Your task to perform on an android device: Show me the alarms in the clock app Image 0: 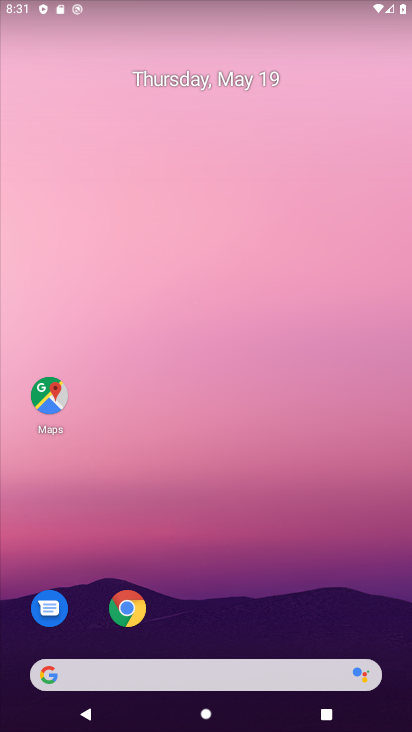
Step 0: click (128, 53)
Your task to perform on an android device: Show me the alarms in the clock app Image 1: 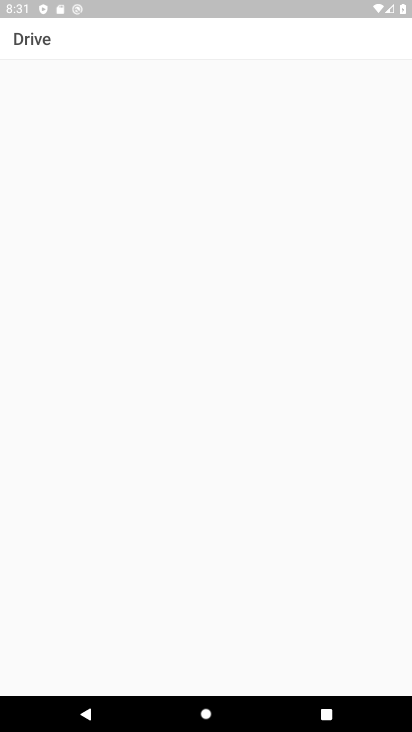
Step 1: press home button
Your task to perform on an android device: Show me the alarms in the clock app Image 2: 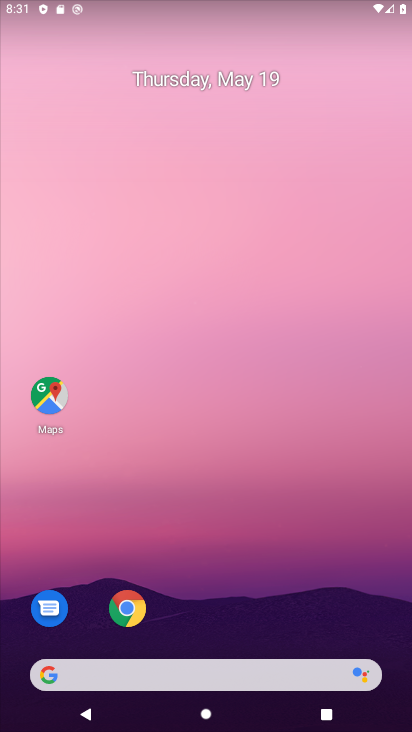
Step 2: drag from (191, 622) to (149, 77)
Your task to perform on an android device: Show me the alarms in the clock app Image 3: 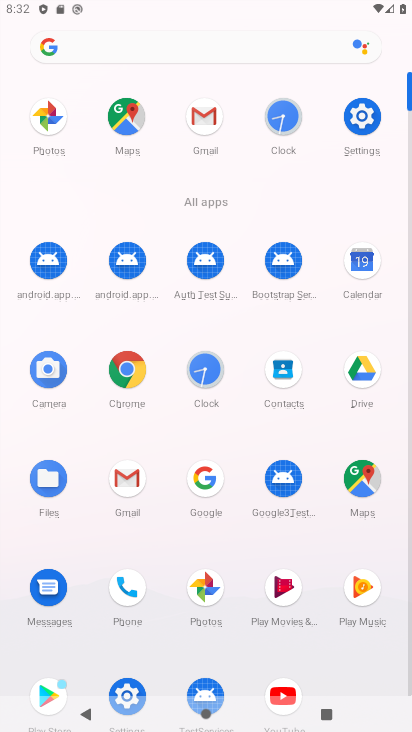
Step 3: click (114, 401)
Your task to perform on an android device: Show me the alarms in the clock app Image 4: 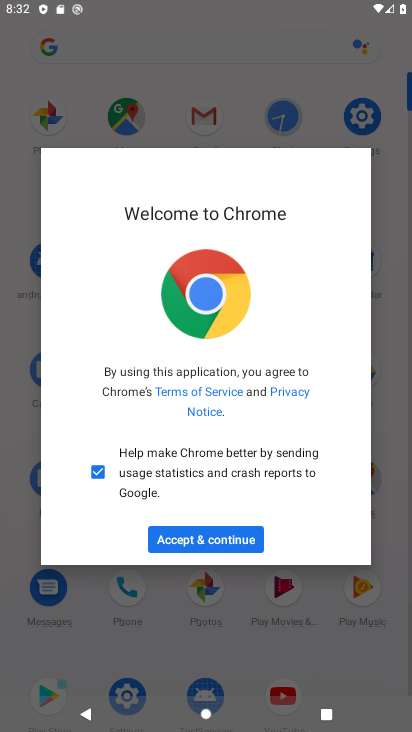
Step 4: click (200, 555)
Your task to perform on an android device: Show me the alarms in the clock app Image 5: 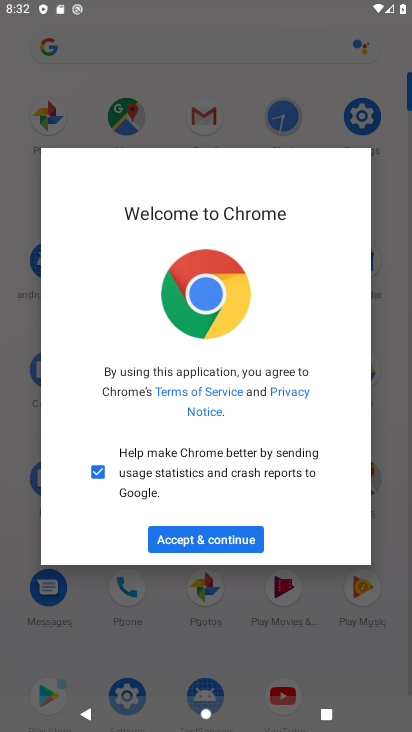
Step 5: click (200, 540)
Your task to perform on an android device: Show me the alarms in the clock app Image 6: 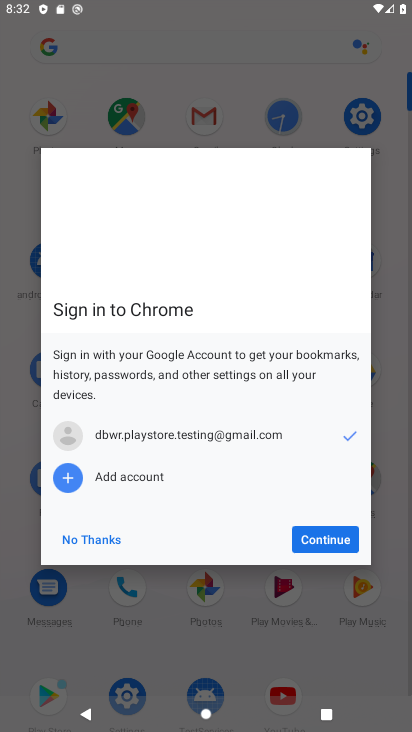
Step 6: click (314, 530)
Your task to perform on an android device: Show me the alarms in the clock app Image 7: 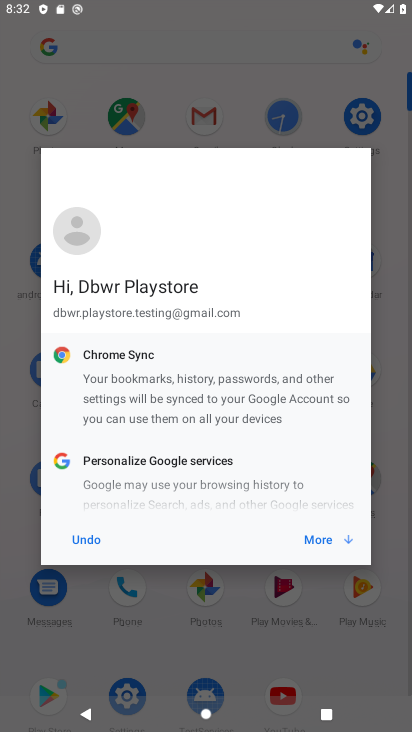
Step 7: click (326, 544)
Your task to perform on an android device: Show me the alarms in the clock app Image 8: 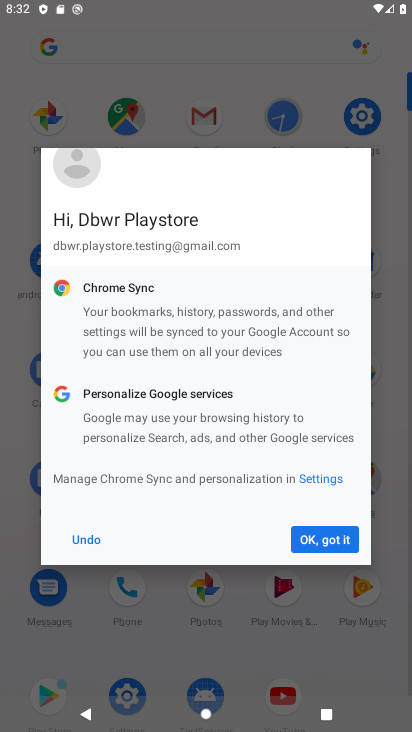
Step 8: click (326, 544)
Your task to perform on an android device: Show me the alarms in the clock app Image 9: 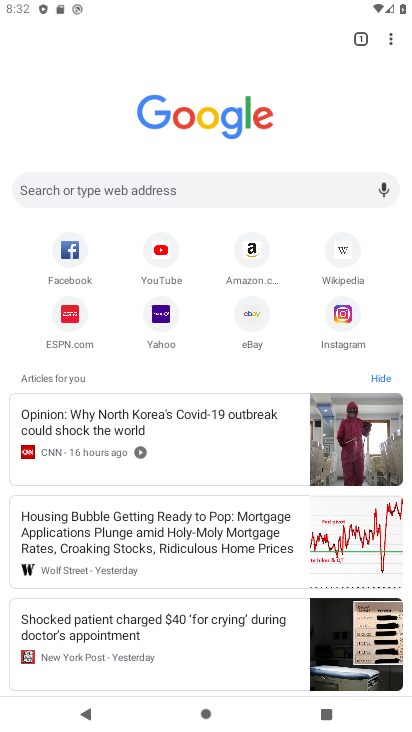
Step 9: press home button
Your task to perform on an android device: Show me the alarms in the clock app Image 10: 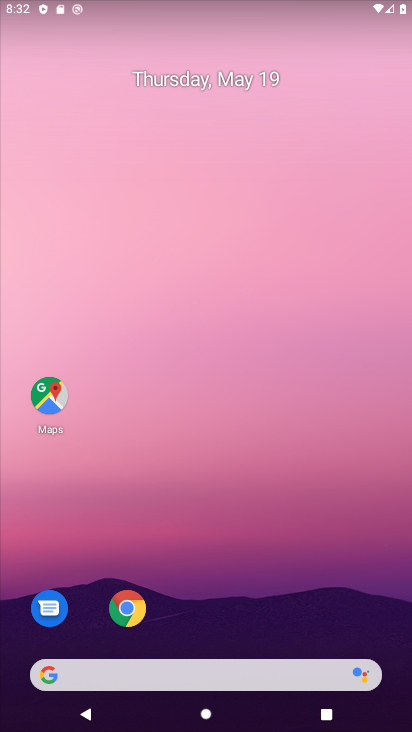
Step 10: drag from (200, 628) to (126, 108)
Your task to perform on an android device: Show me the alarms in the clock app Image 11: 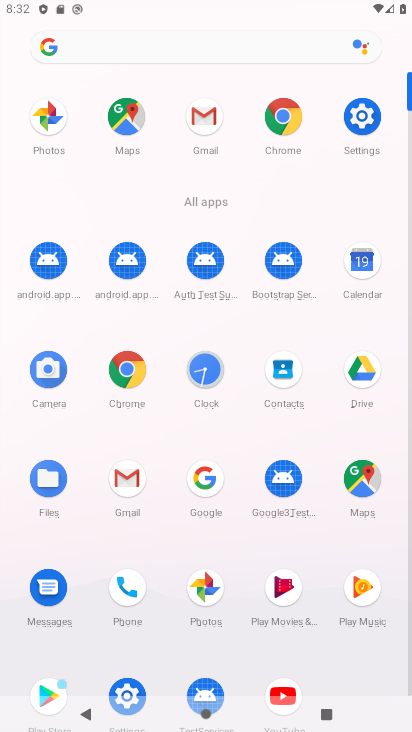
Step 11: click (203, 344)
Your task to perform on an android device: Show me the alarms in the clock app Image 12: 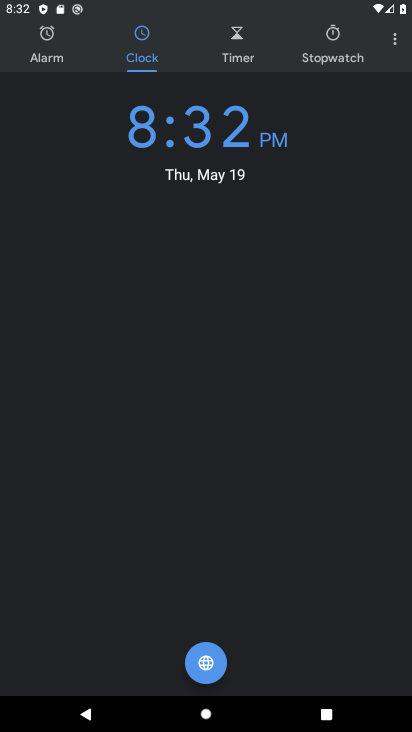
Step 12: click (32, 61)
Your task to perform on an android device: Show me the alarms in the clock app Image 13: 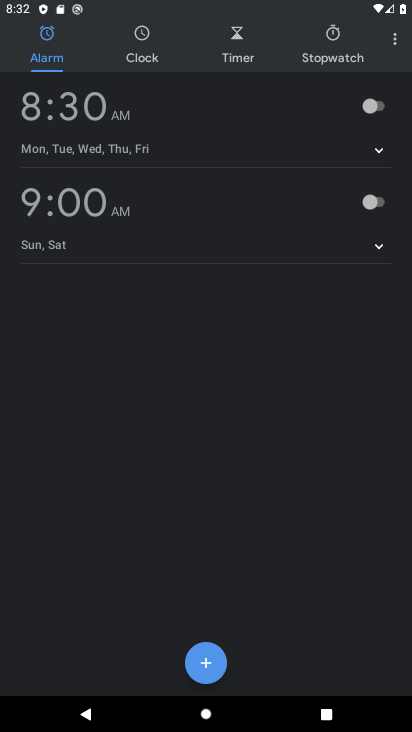
Step 13: task complete